Your task to perform on an android device: Open Chrome and go to the settings page Image 0: 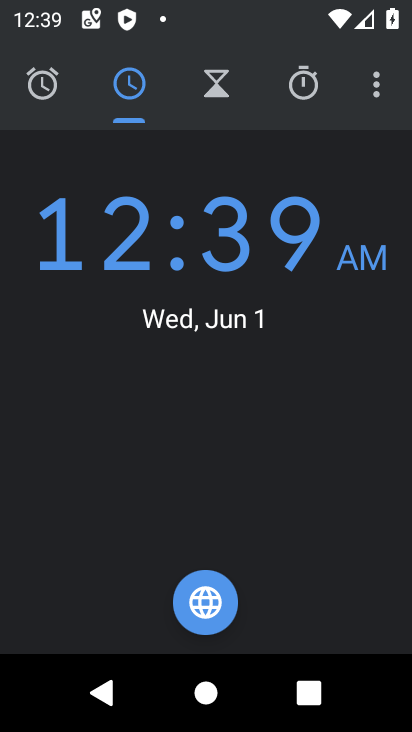
Step 0: press home button
Your task to perform on an android device: Open Chrome and go to the settings page Image 1: 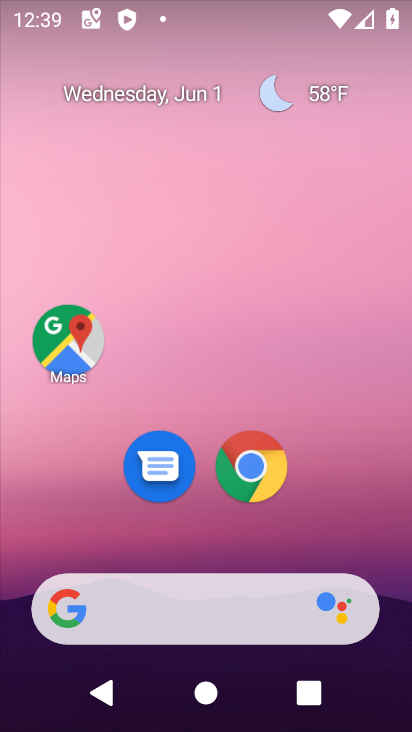
Step 1: drag from (399, 569) to (316, 200)
Your task to perform on an android device: Open Chrome and go to the settings page Image 2: 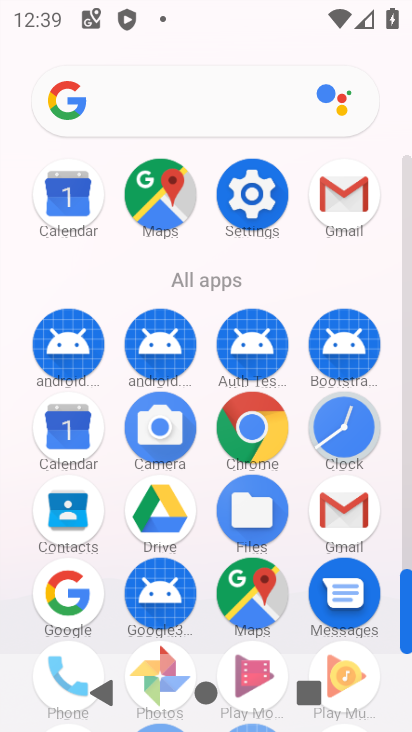
Step 2: click (256, 190)
Your task to perform on an android device: Open Chrome and go to the settings page Image 3: 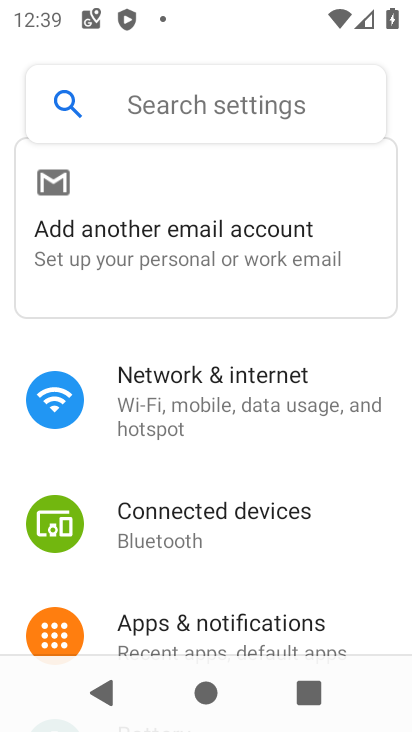
Step 3: press home button
Your task to perform on an android device: Open Chrome and go to the settings page Image 4: 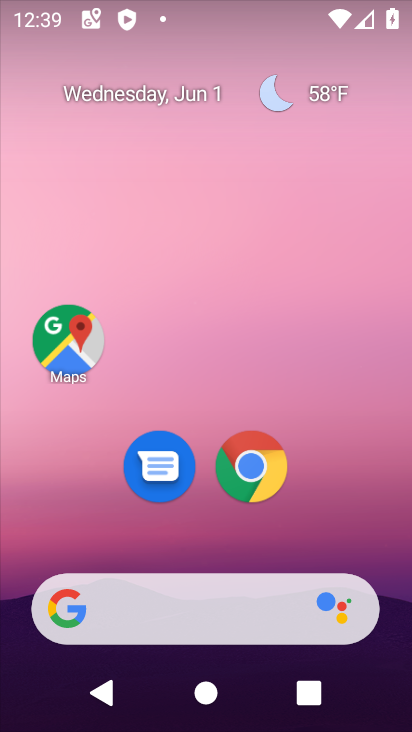
Step 4: click (249, 474)
Your task to perform on an android device: Open Chrome and go to the settings page Image 5: 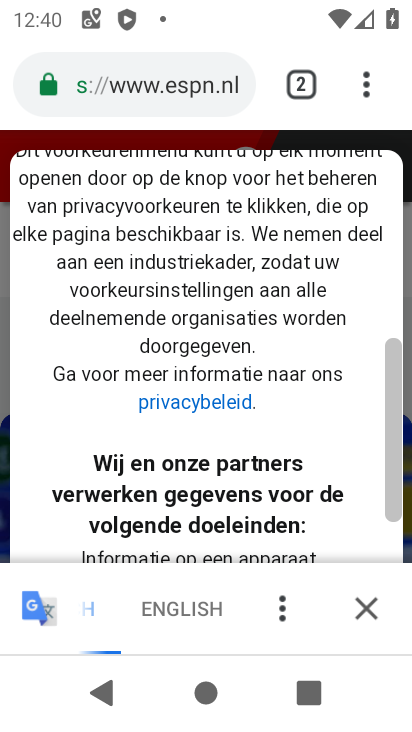
Step 5: click (366, 88)
Your task to perform on an android device: Open Chrome and go to the settings page Image 6: 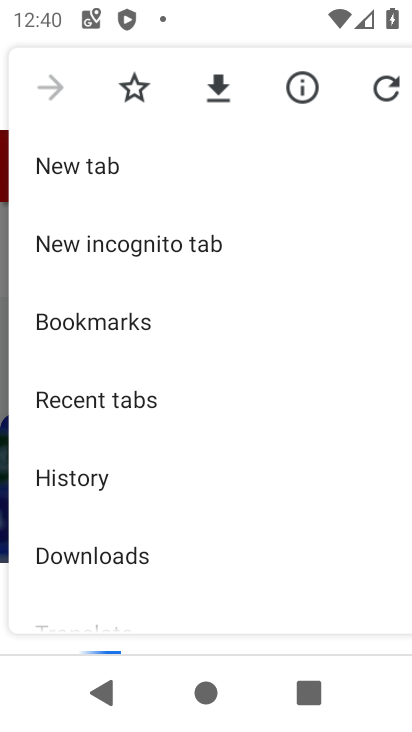
Step 6: drag from (217, 606) to (192, 132)
Your task to perform on an android device: Open Chrome and go to the settings page Image 7: 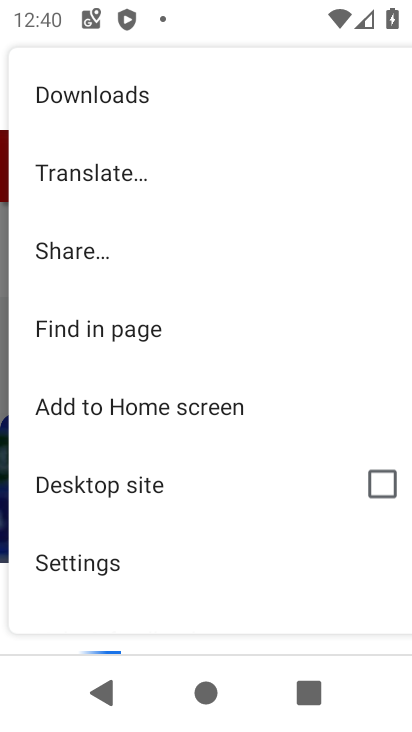
Step 7: click (139, 557)
Your task to perform on an android device: Open Chrome and go to the settings page Image 8: 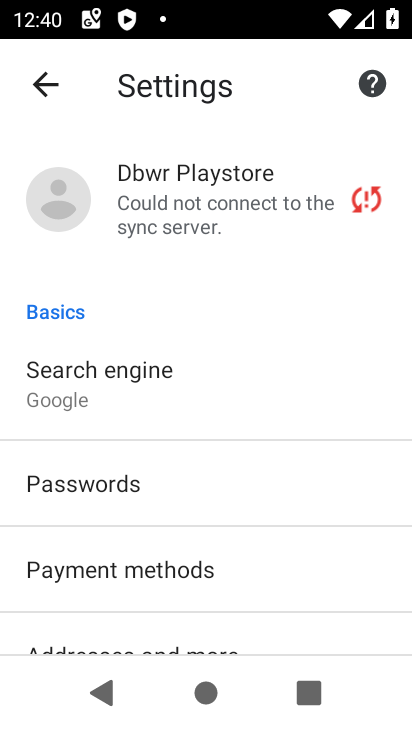
Step 8: task complete